Your task to perform on an android device: Search for a nightstand on IKEA. Image 0: 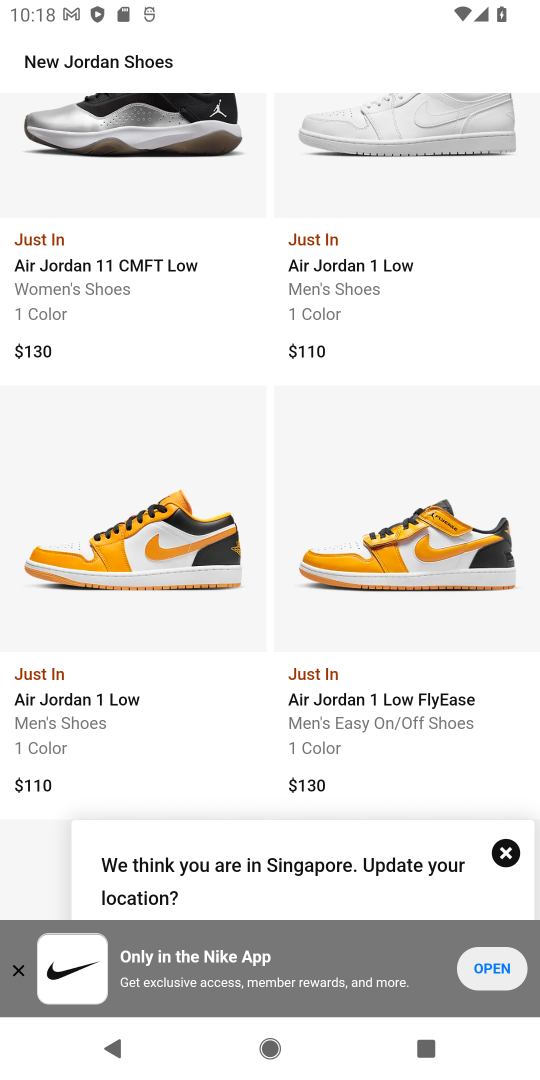
Step 0: press home button
Your task to perform on an android device: Search for a nightstand on IKEA. Image 1: 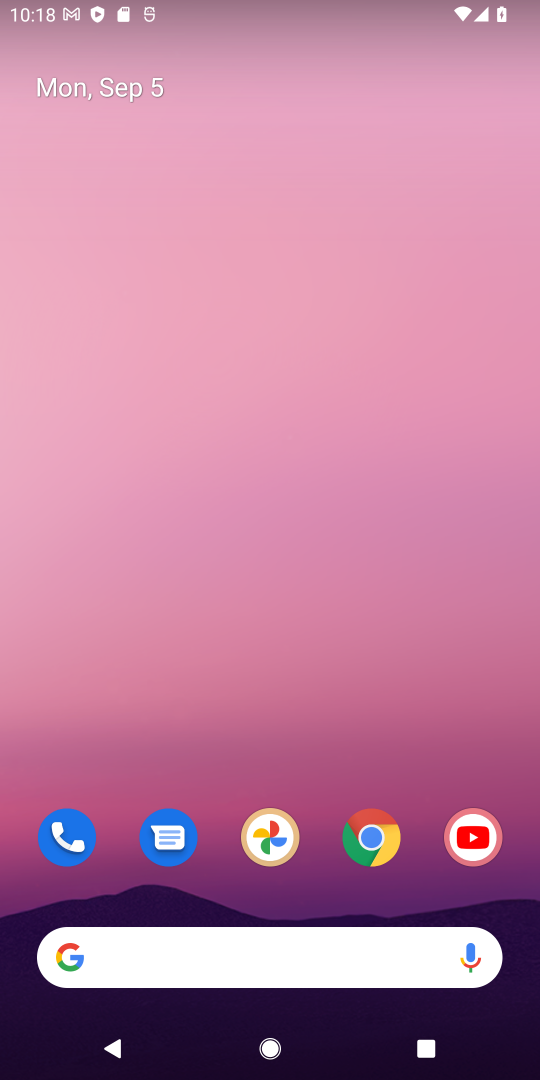
Step 1: drag from (318, 804) to (345, 62)
Your task to perform on an android device: Search for a nightstand on IKEA. Image 2: 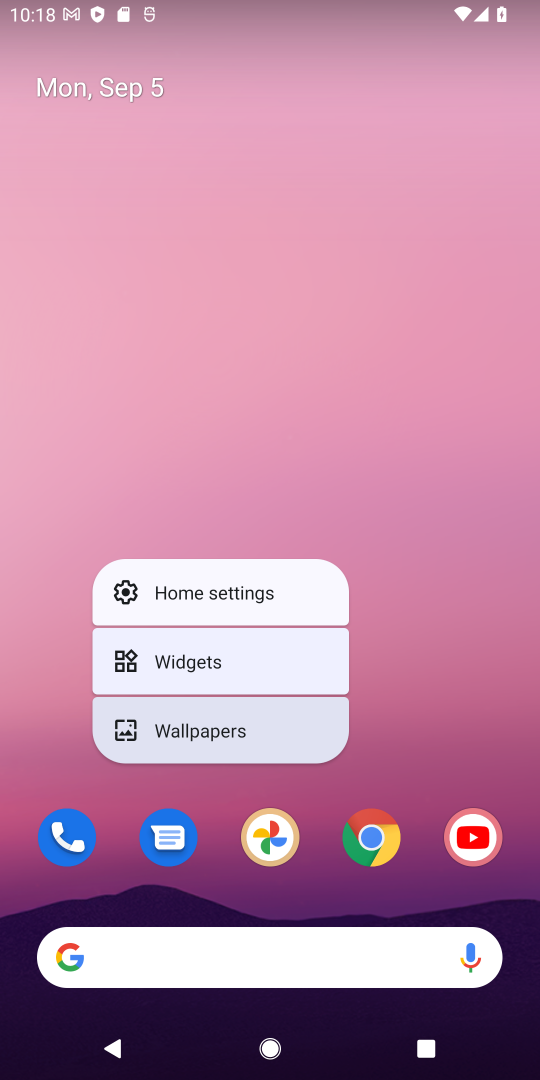
Step 2: click (445, 729)
Your task to perform on an android device: Search for a nightstand on IKEA. Image 3: 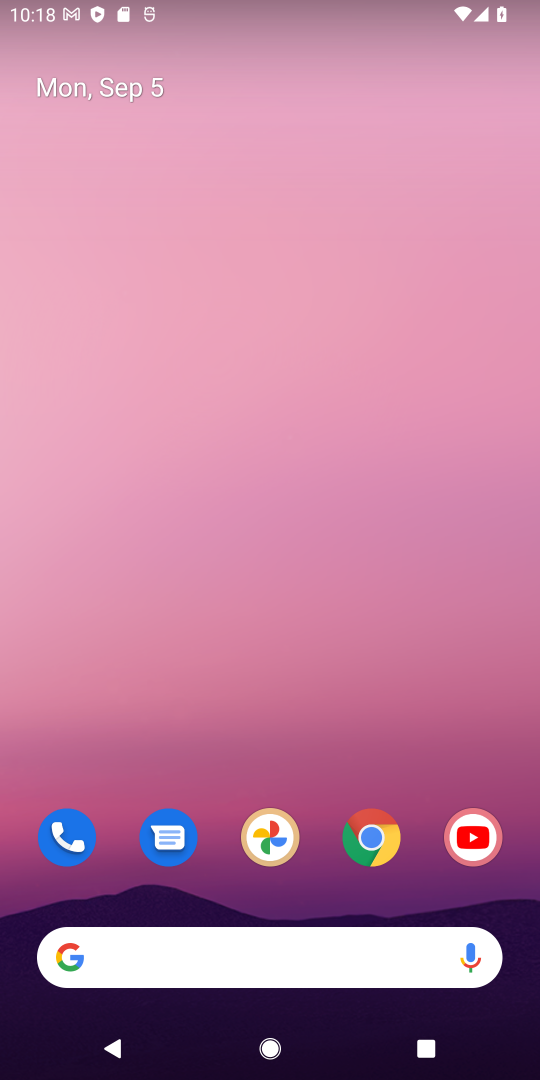
Step 3: drag from (322, 816) to (381, 156)
Your task to perform on an android device: Search for a nightstand on IKEA. Image 4: 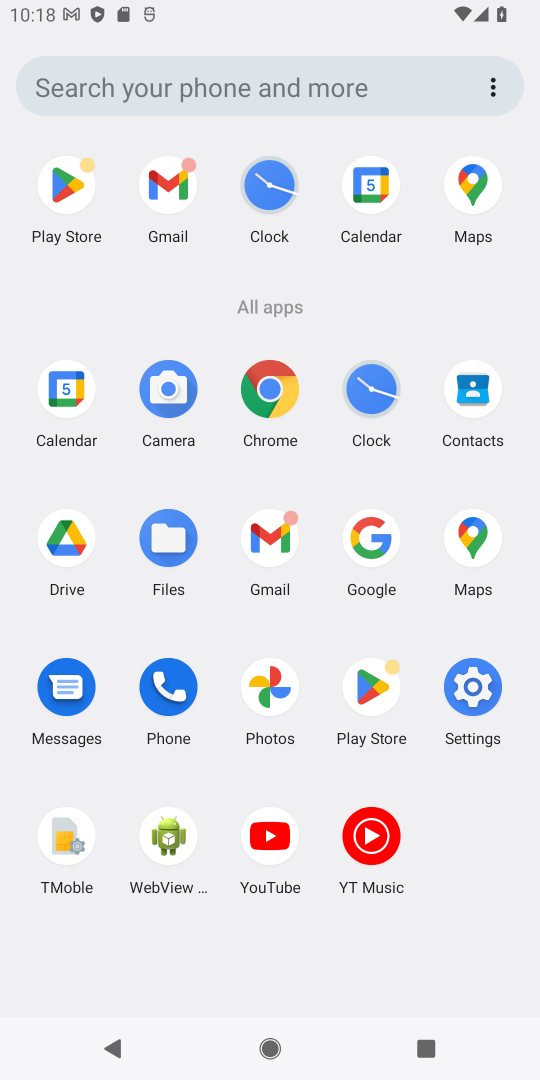
Step 4: click (262, 384)
Your task to perform on an android device: Search for a nightstand on IKEA. Image 5: 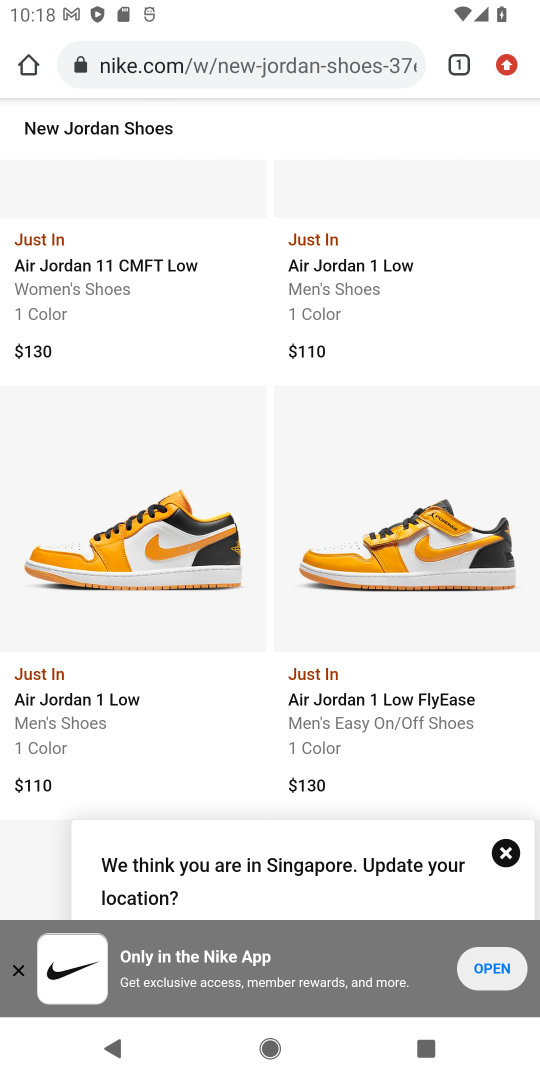
Step 5: click (218, 55)
Your task to perform on an android device: Search for a nightstand on IKEA. Image 6: 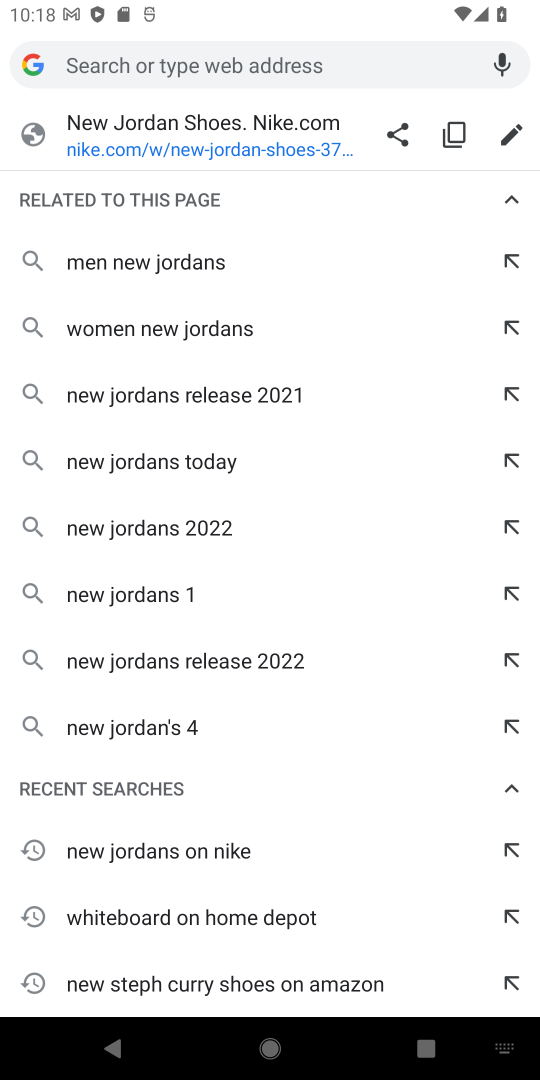
Step 6: type "nightstand on IKEA"
Your task to perform on an android device: Search for a nightstand on IKEA. Image 7: 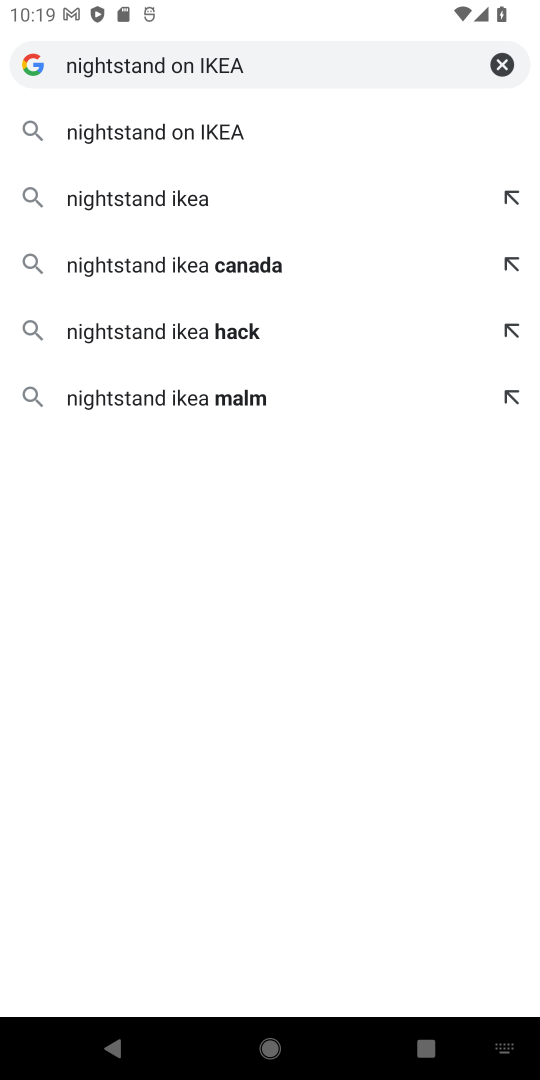
Step 7: click (184, 130)
Your task to perform on an android device: Search for a nightstand on IKEA. Image 8: 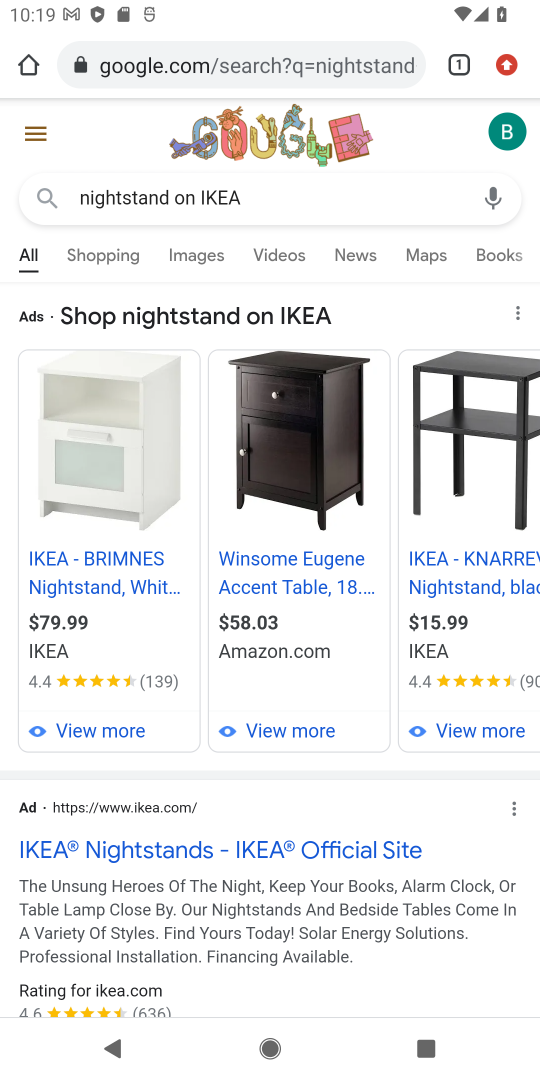
Step 8: click (299, 847)
Your task to perform on an android device: Search for a nightstand on IKEA. Image 9: 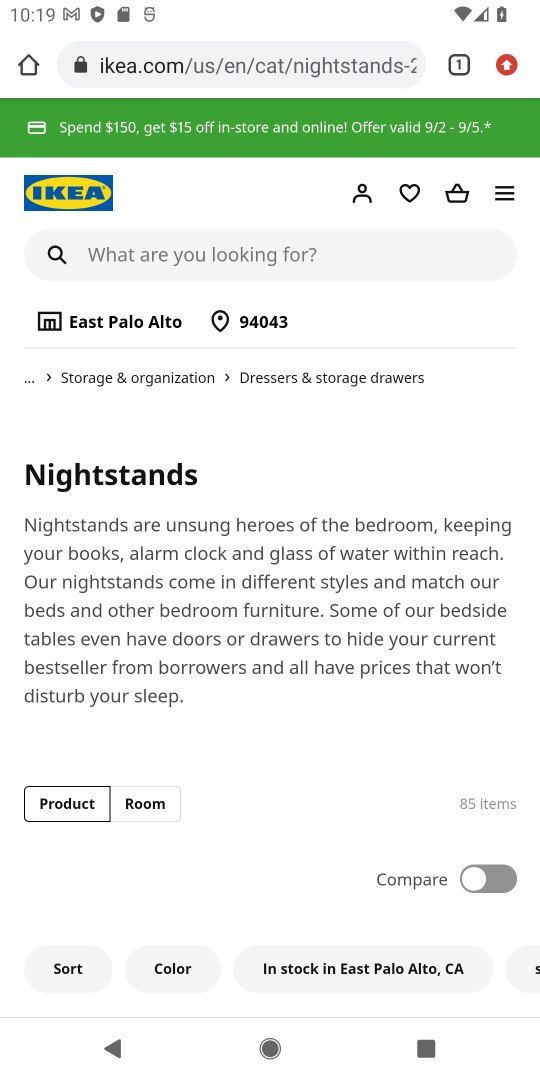
Step 9: task complete